Your task to perform on an android device: open app "Google Play Games" (install if not already installed) Image 0: 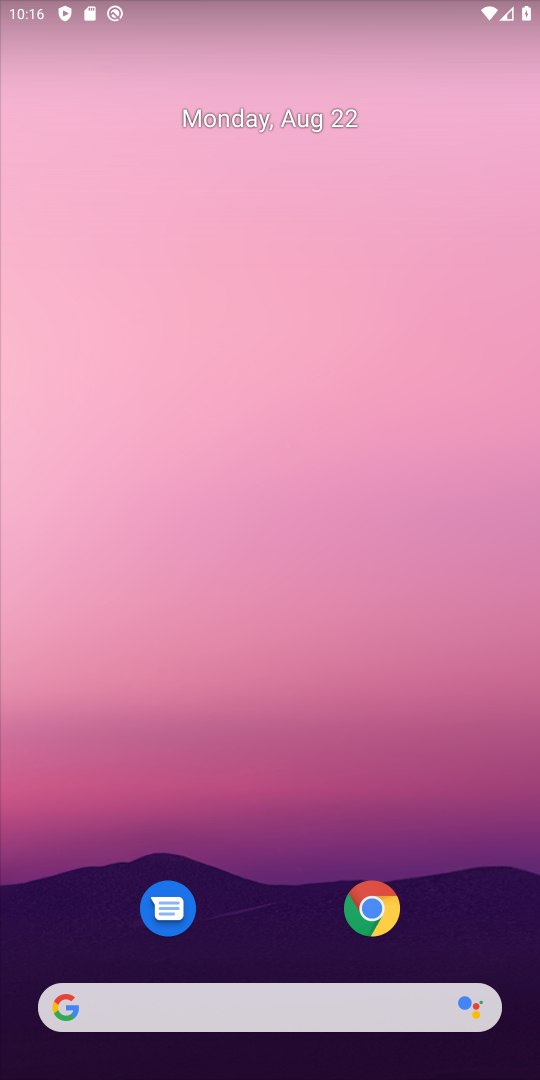
Step 0: drag from (232, 960) to (333, 83)
Your task to perform on an android device: open app "Google Play Games" (install if not already installed) Image 1: 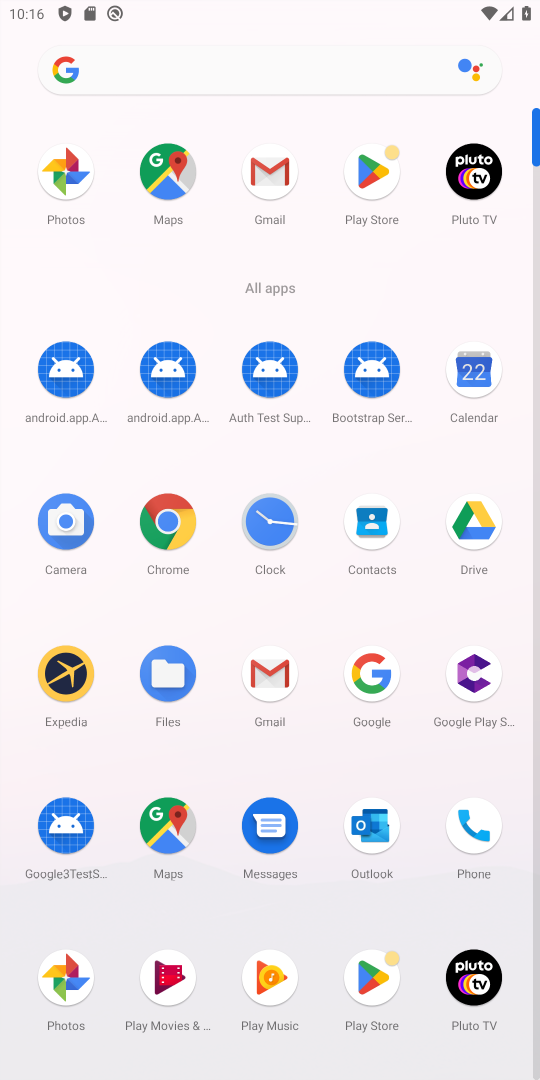
Step 1: click (398, 179)
Your task to perform on an android device: open app "Google Play Games" (install if not already installed) Image 2: 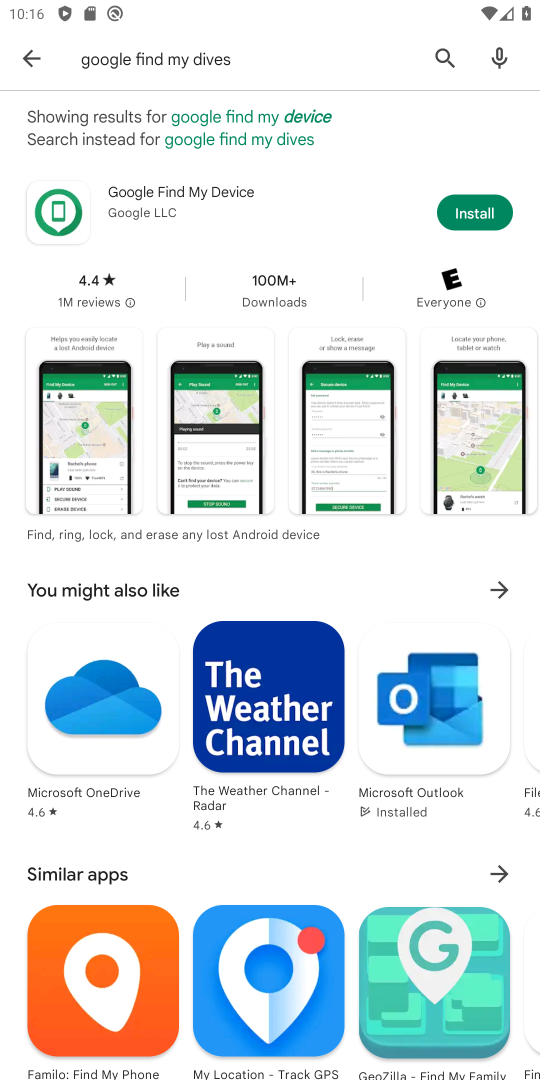
Step 2: click (451, 74)
Your task to perform on an android device: open app "Google Play Games" (install if not already installed) Image 3: 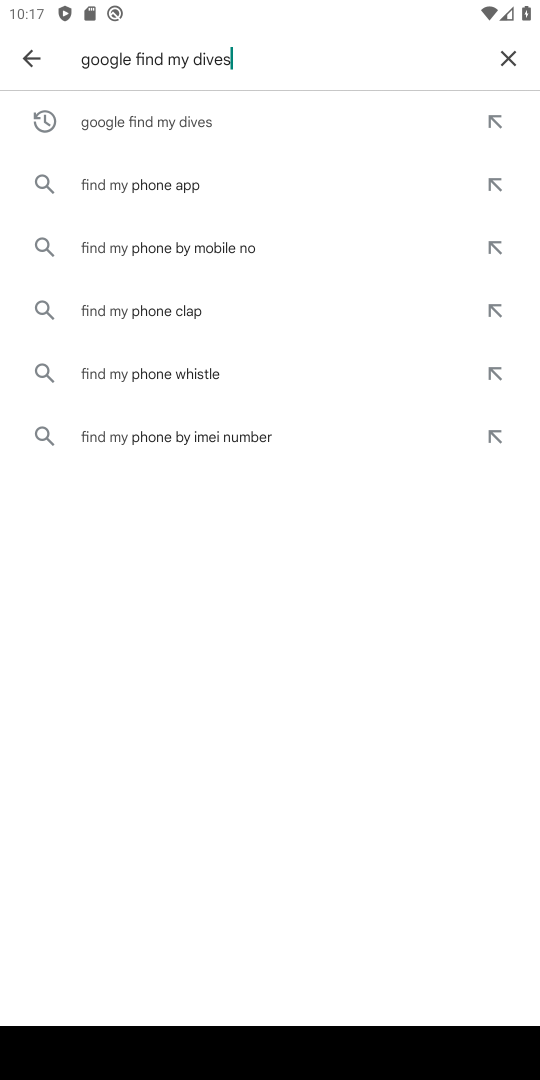
Step 3: click (503, 74)
Your task to perform on an android device: open app "Google Play Games" (install if not already installed) Image 4: 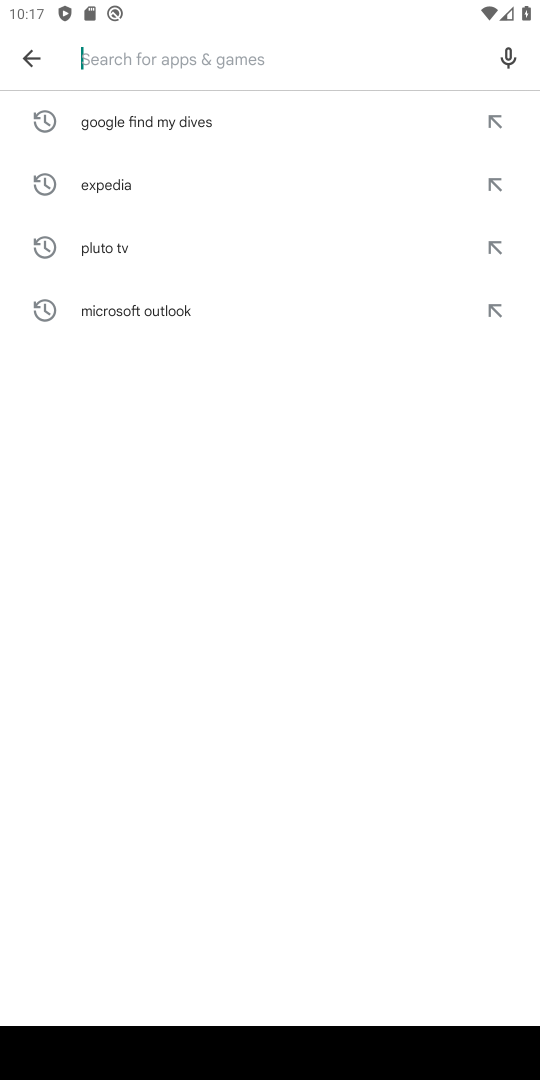
Step 4: type "goolg e polay gamr"
Your task to perform on an android device: open app "Google Play Games" (install if not already installed) Image 5: 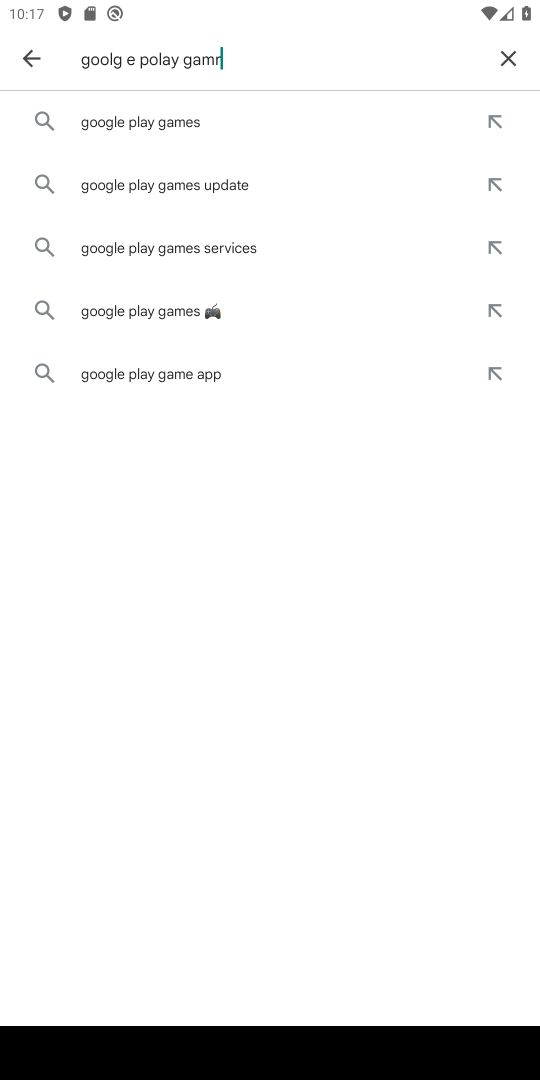
Step 5: click (247, 133)
Your task to perform on an android device: open app "Google Play Games" (install if not already installed) Image 6: 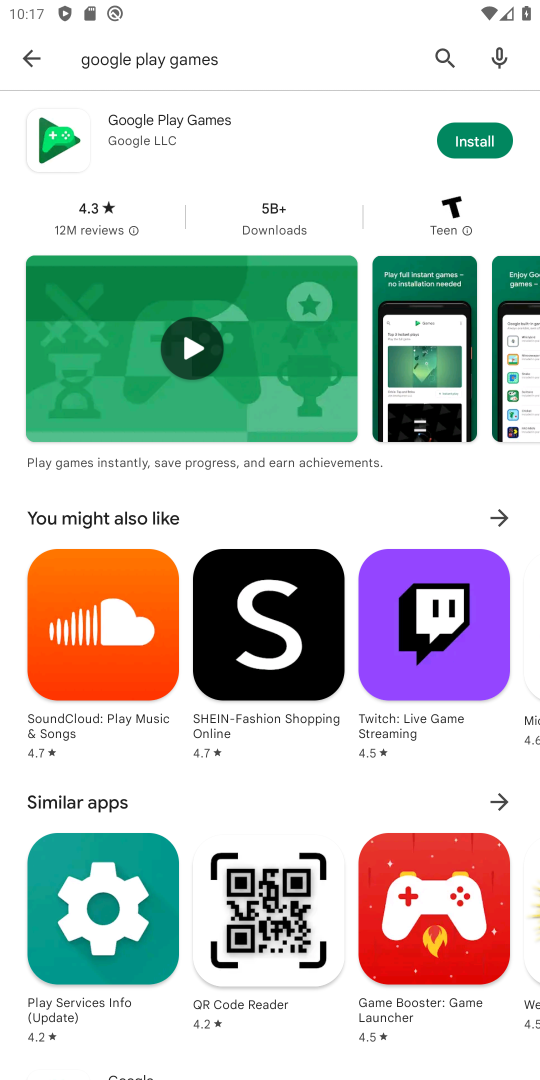
Step 6: click (442, 152)
Your task to perform on an android device: open app "Google Play Games" (install if not already installed) Image 7: 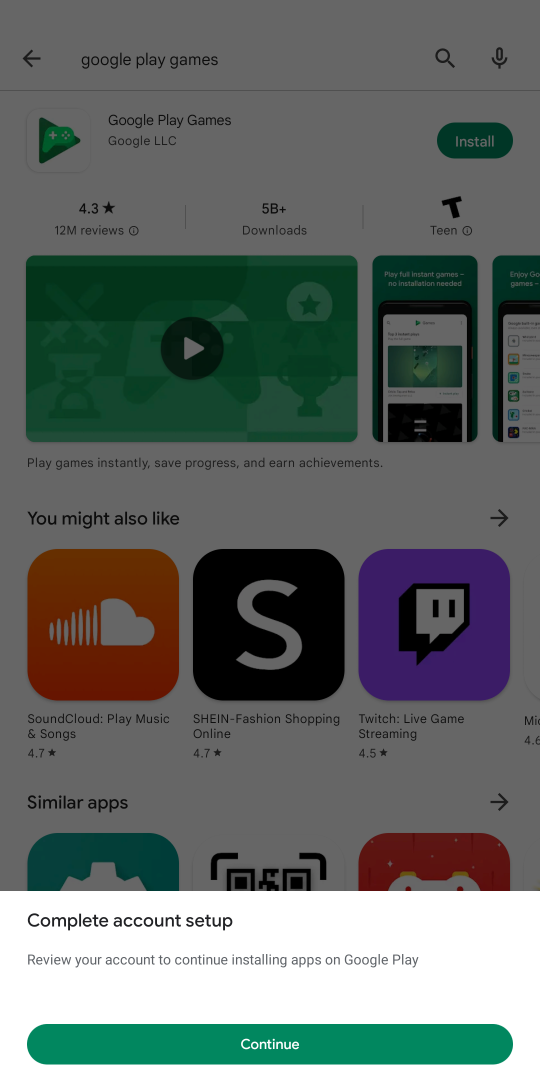
Step 7: click (189, 1030)
Your task to perform on an android device: open app "Google Play Games" (install if not already installed) Image 8: 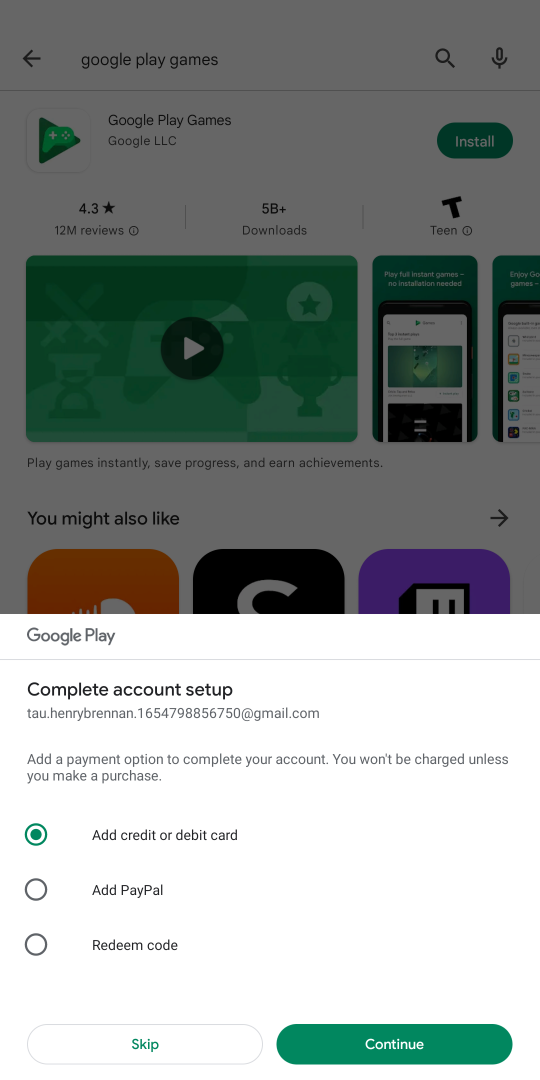
Step 8: click (141, 1040)
Your task to perform on an android device: open app "Google Play Games" (install if not already installed) Image 9: 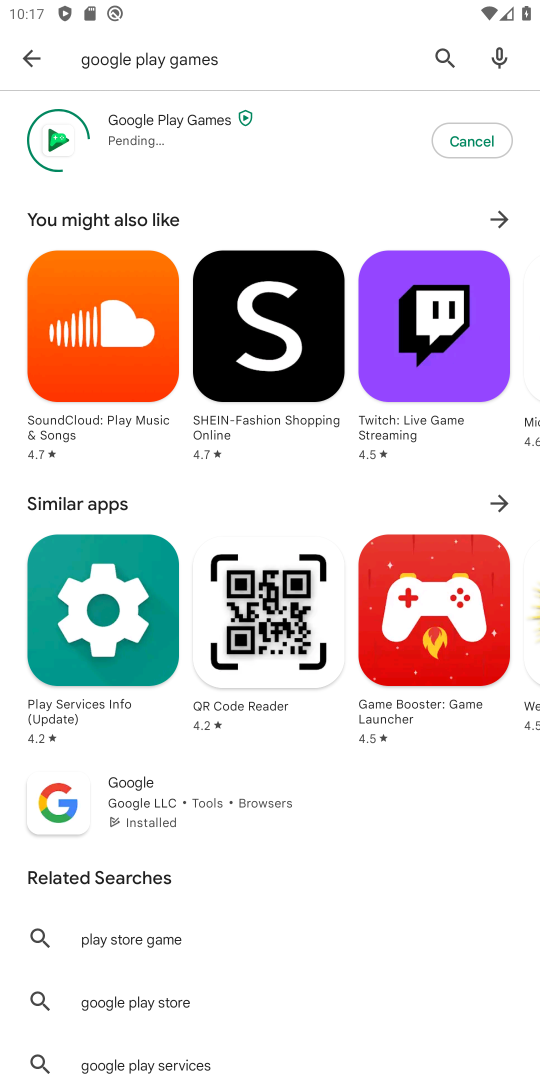
Step 9: task complete